Your task to perform on an android device: turn off location history Image 0: 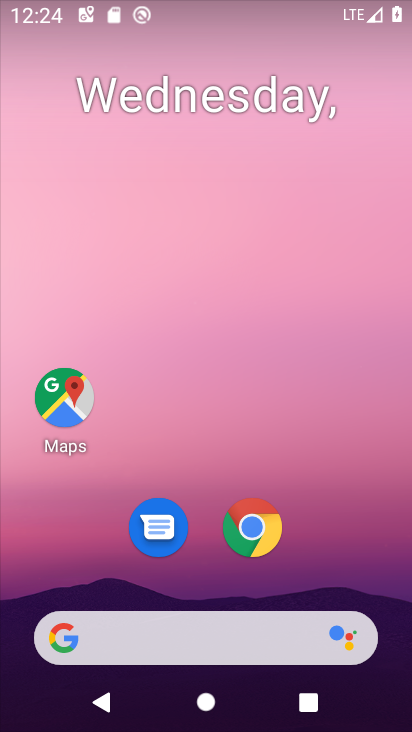
Step 0: drag from (266, 580) to (299, 38)
Your task to perform on an android device: turn off location history Image 1: 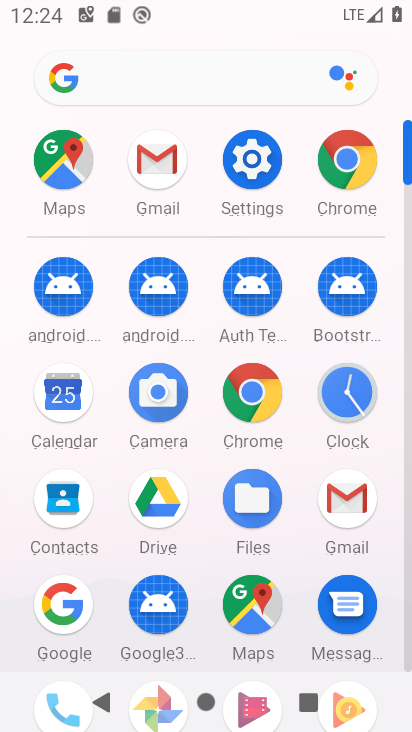
Step 1: click (248, 156)
Your task to perform on an android device: turn off location history Image 2: 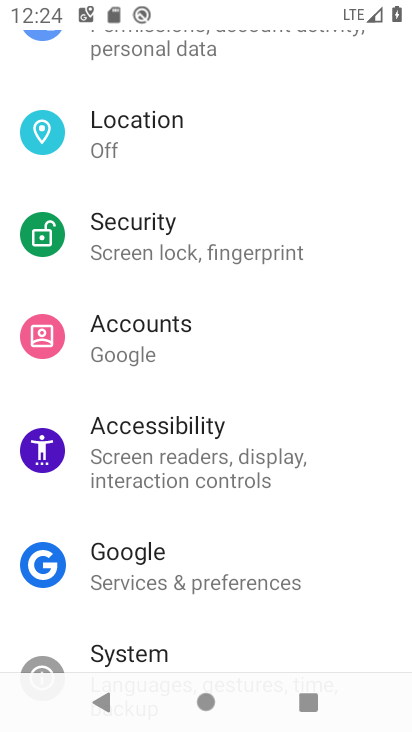
Step 2: click (173, 134)
Your task to perform on an android device: turn off location history Image 3: 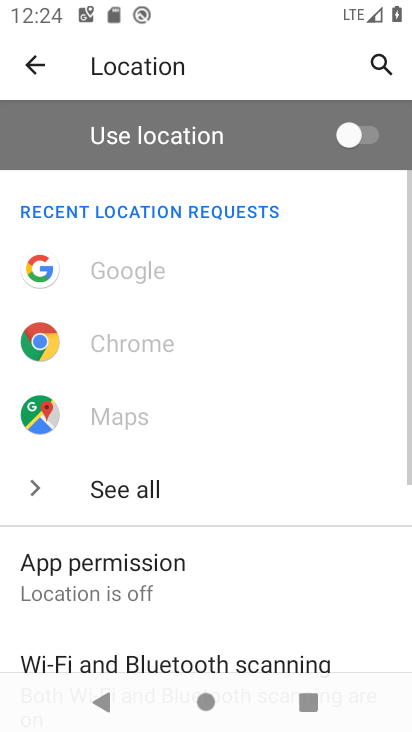
Step 3: drag from (261, 658) to (288, 214)
Your task to perform on an android device: turn off location history Image 4: 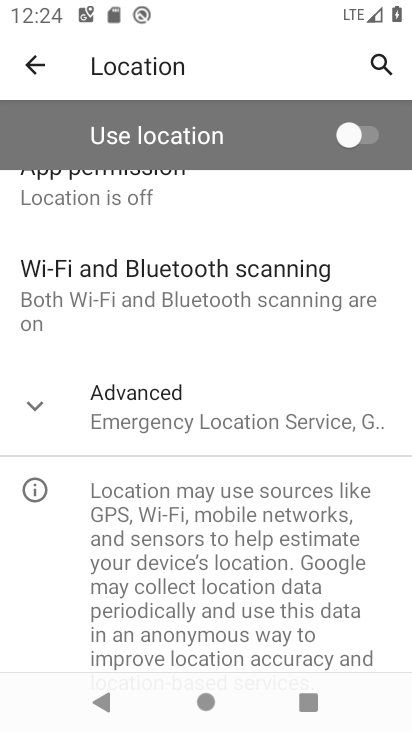
Step 4: click (238, 410)
Your task to perform on an android device: turn off location history Image 5: 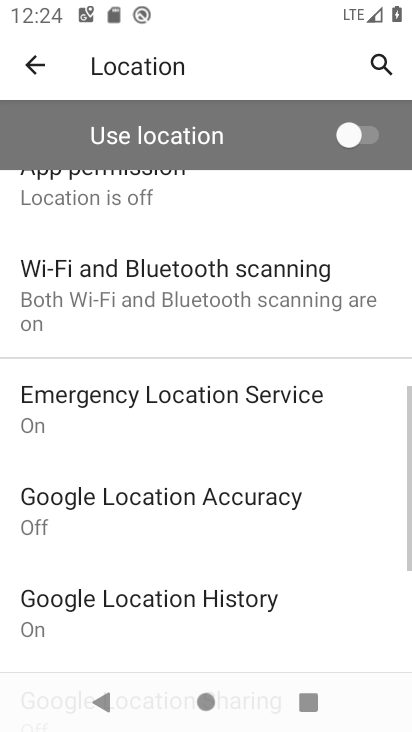
Step 5: click (173, 624)
Your task to perform on an android device: turn off location history Image 6: 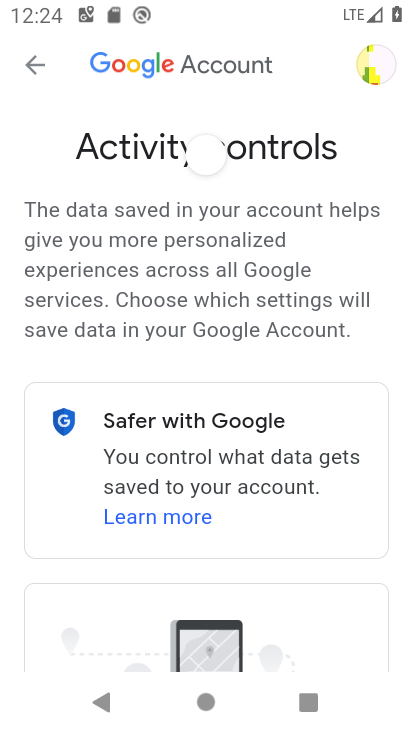
Step 6: task complete